Your task to perform on an android device: move an email to a new category in the gmail app Image 0: 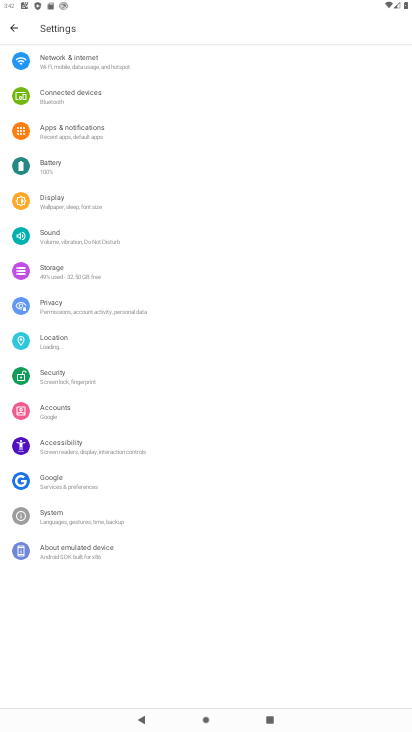
Step 0: press home button
Your task to perform on an android device: move an email to a new category in the gmail app Image 1: 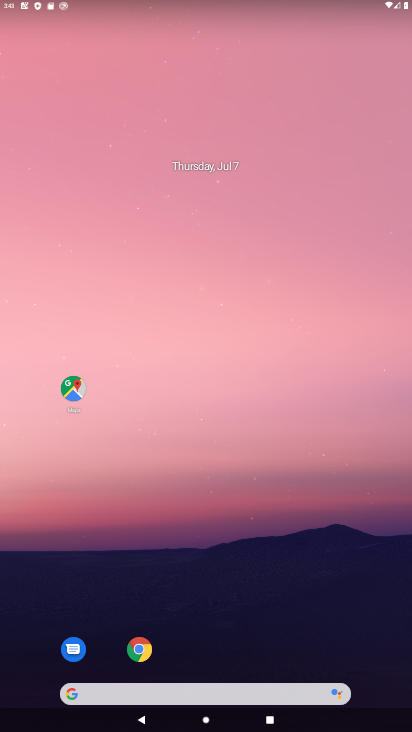
Step 1: drag from (388, 680) to (321, 214)
Your task to perform on an android device: move an email to a new category in the gmail app Image 2: 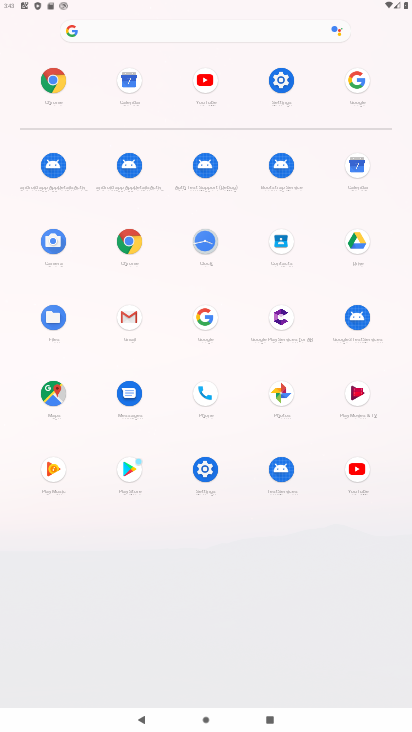
Step 2: click (128, 315)
Your task to perform on an android device: move an email to a new category in the gmail app Image 3: 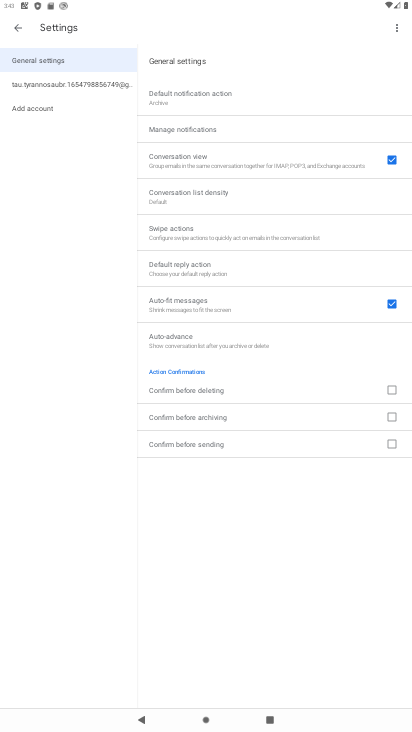
Step 3: task complete